Your task to perform on an android device: Search for pizza restaurants on Maps Image 0: 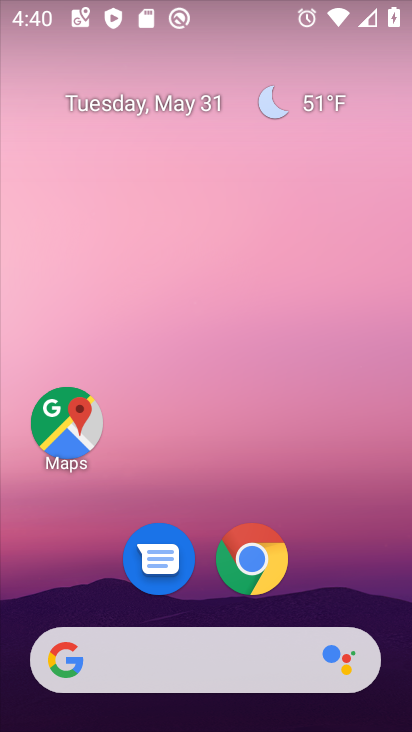
Step 0: click (67, 434)
Your task to perform on an android device: Search for pizza restaurants on Maps Image 1: 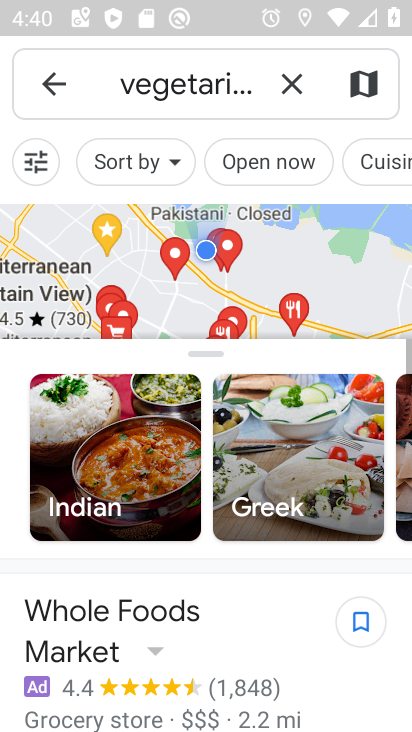
Step 1: click (294, 86)
Your task to perform on an android device: Search for pizza restaurants on Maps Image 2: 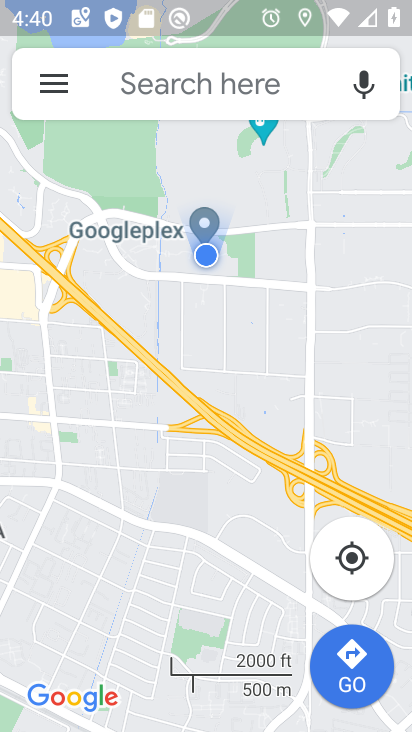
Step 2: click (255, 90)
Your task to perform on an android device: Search for pizza restaurants on Maps Image 3: 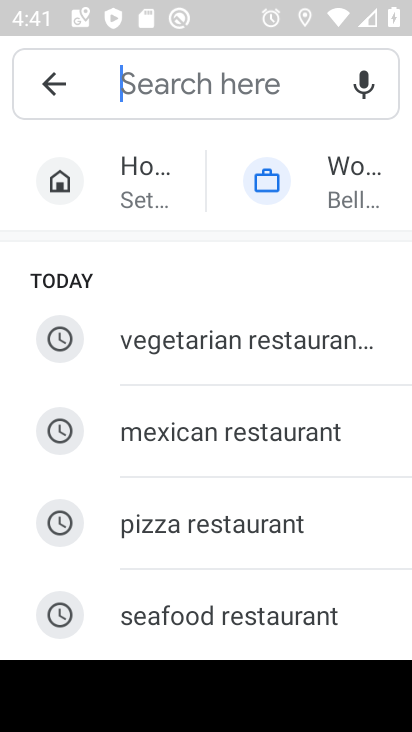
Step 3: type "pizza restaurants"
Your task to perform on an android device: Search for pizza restaurants on Maps Image 4: 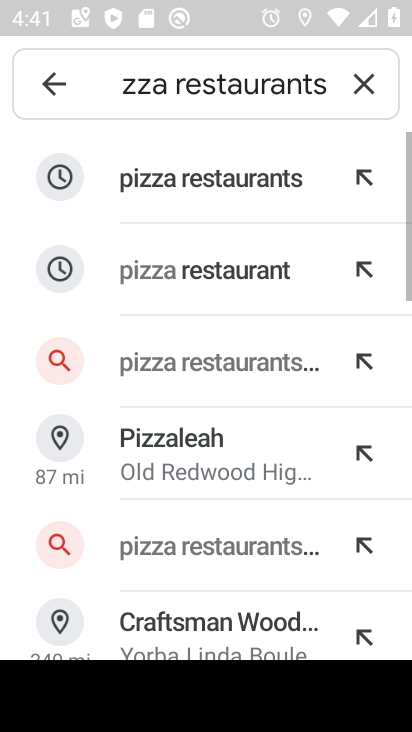
Step 4: click (141, 204)
Your task to perform on an android device: Search for pizza restaurants on Maps Image 5: 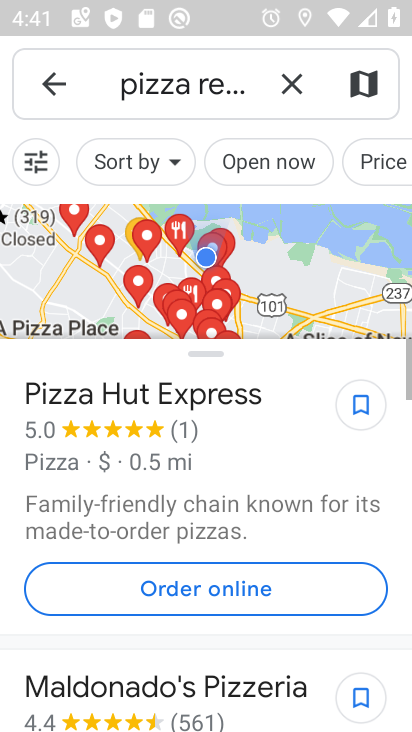
Step 5: task complete